Your task to perform on an android device: clear history in the chrome app Image 0: 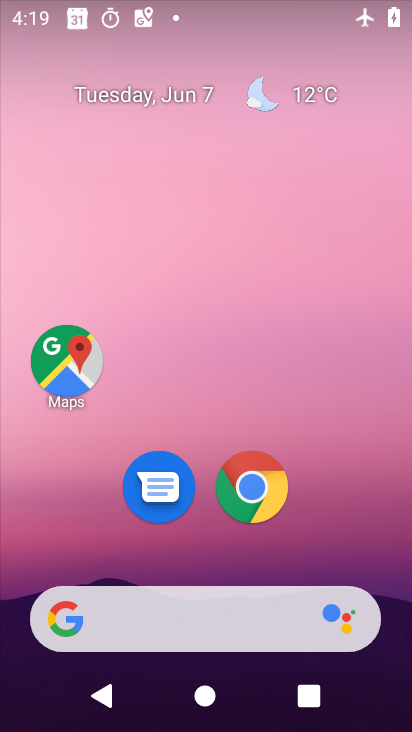
Step 0: click (243, 489)
Your task to perform on an android device: clear history in the chrome app Image 1: 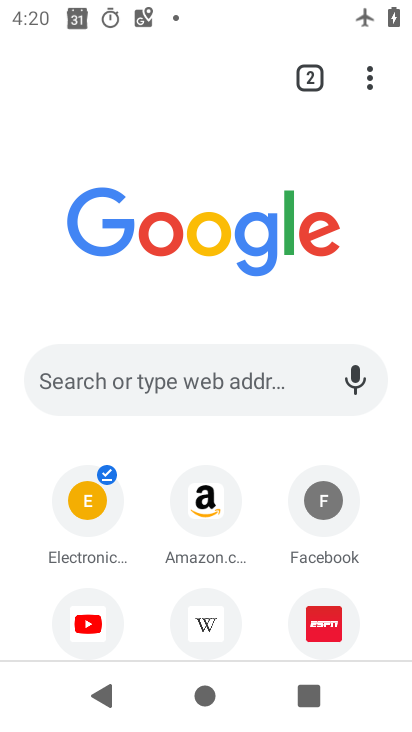
Step 1: drag from (366, 65) to (94, 433)
Your task to perform on an android device: clear history in the chrome app Image 2: 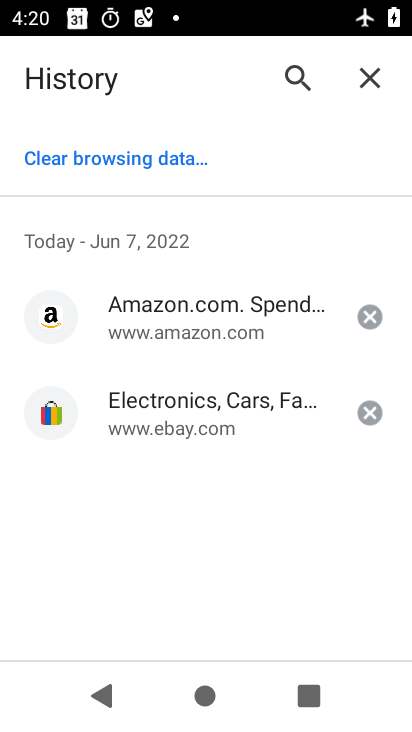
Step 2: click (172, 151)
Your task to perform on an android device: clear history in the chrome app Image 3: 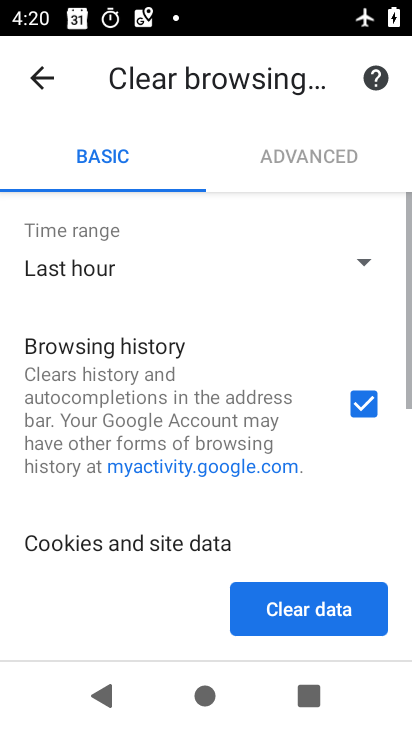
Step 3: drag from (189, 508) to (241, 175)
Your task to perform on an android device: clear history in the chrome app Image 4: 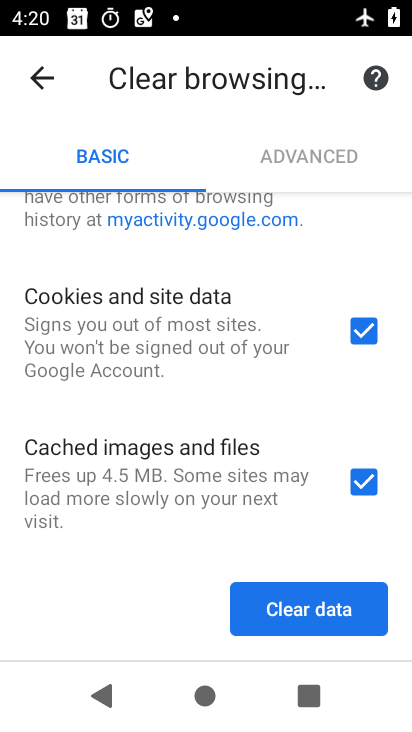
Step 4: click (286, 601)
Your task to perform on an android device: clear history in the chrome app Image 5: 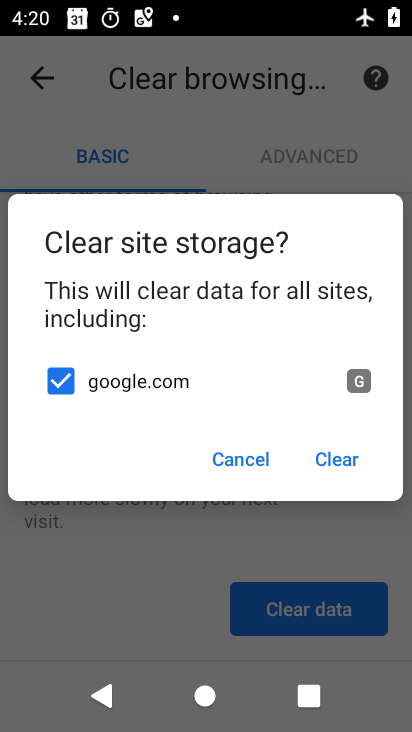
Step 5: click (340, 463)
Your task to perform on an android device: clear history in the chrome app Image 6: 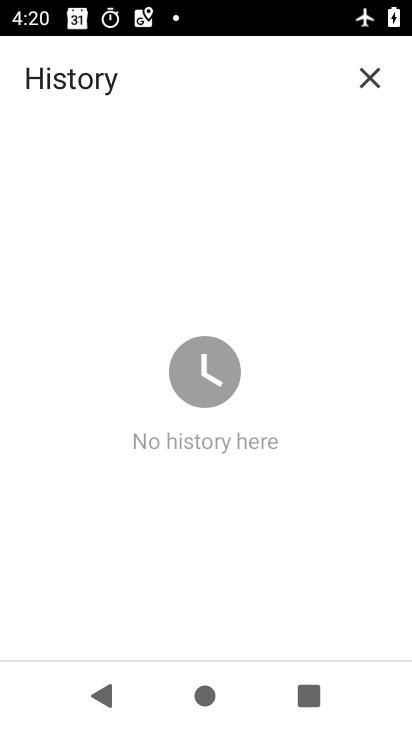
Step 6: task complete